Your task to perform on an android device: What's the weather today? Image 0: 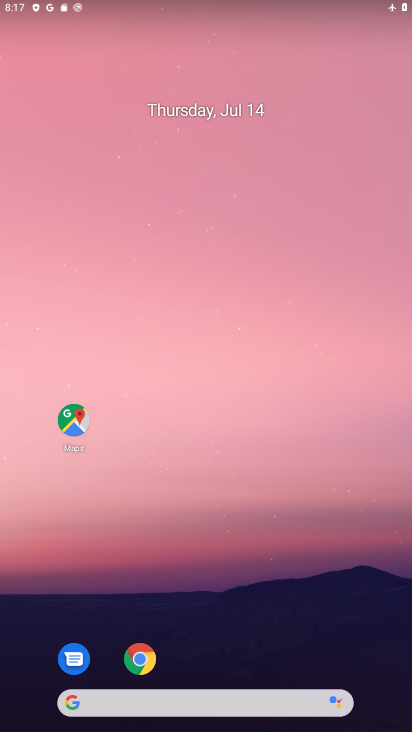
Step 0: click (160, 700)
Your task to perform on an android device: What's the weather today? Image 1: 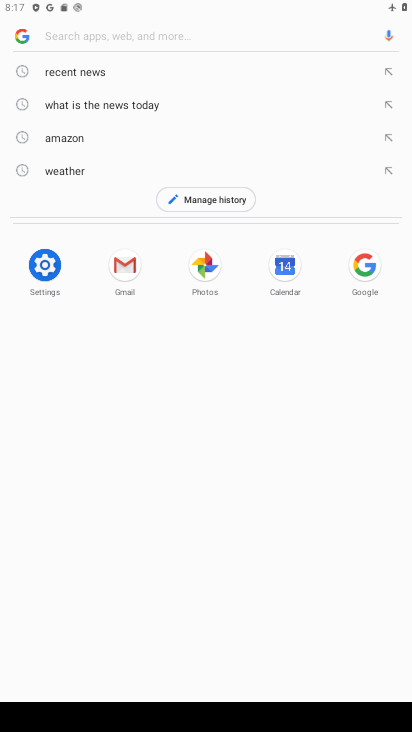
Step 1: click (55, 170)
Your task to perform on an android device: What's the weather today? Image 2: 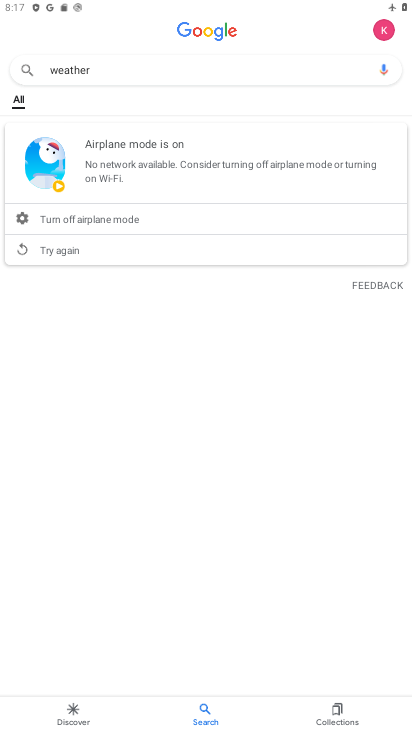
Step 2: task complete